Your task to perform on an android device: What is the recent news? Image 0: 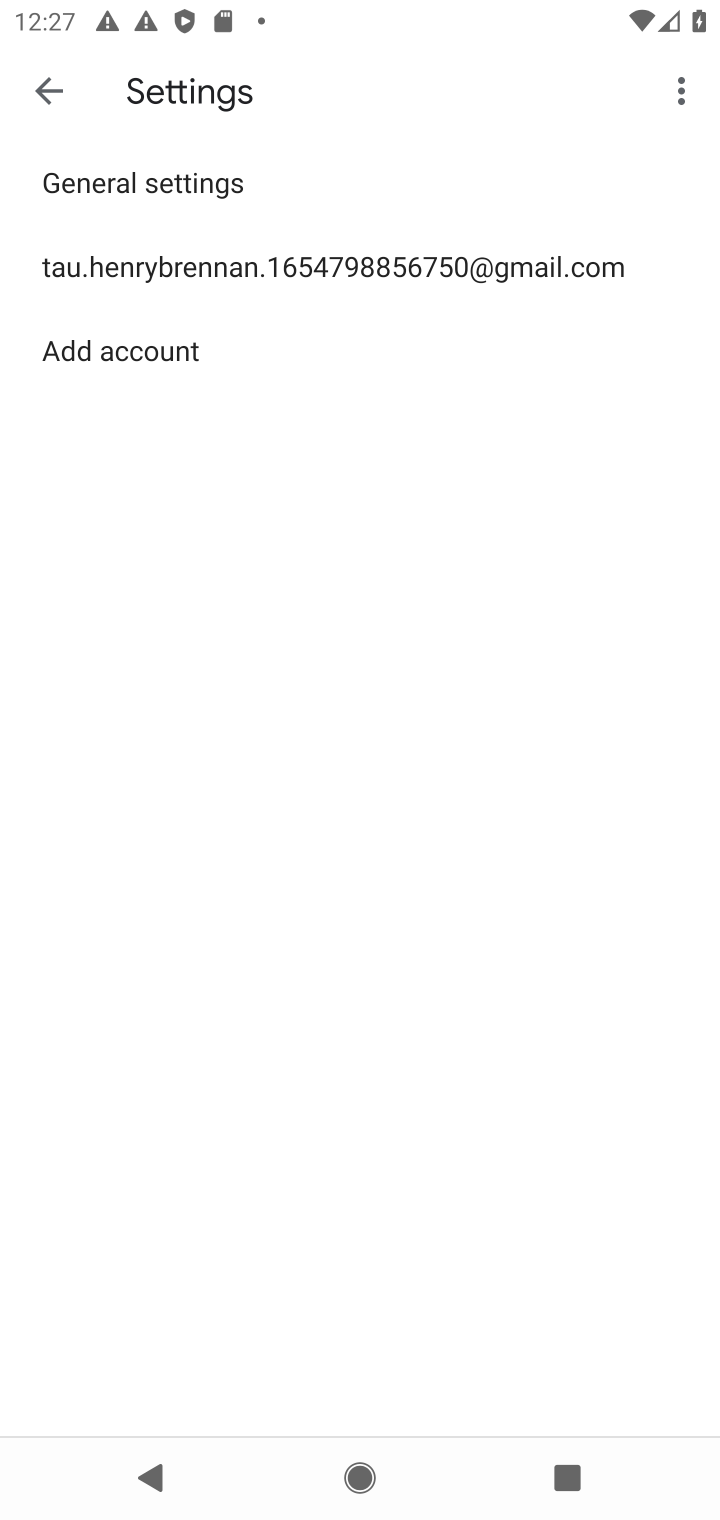
Step 0: click (409, 432)
Your task to perform on an android device: What is the recent news? Image 1: 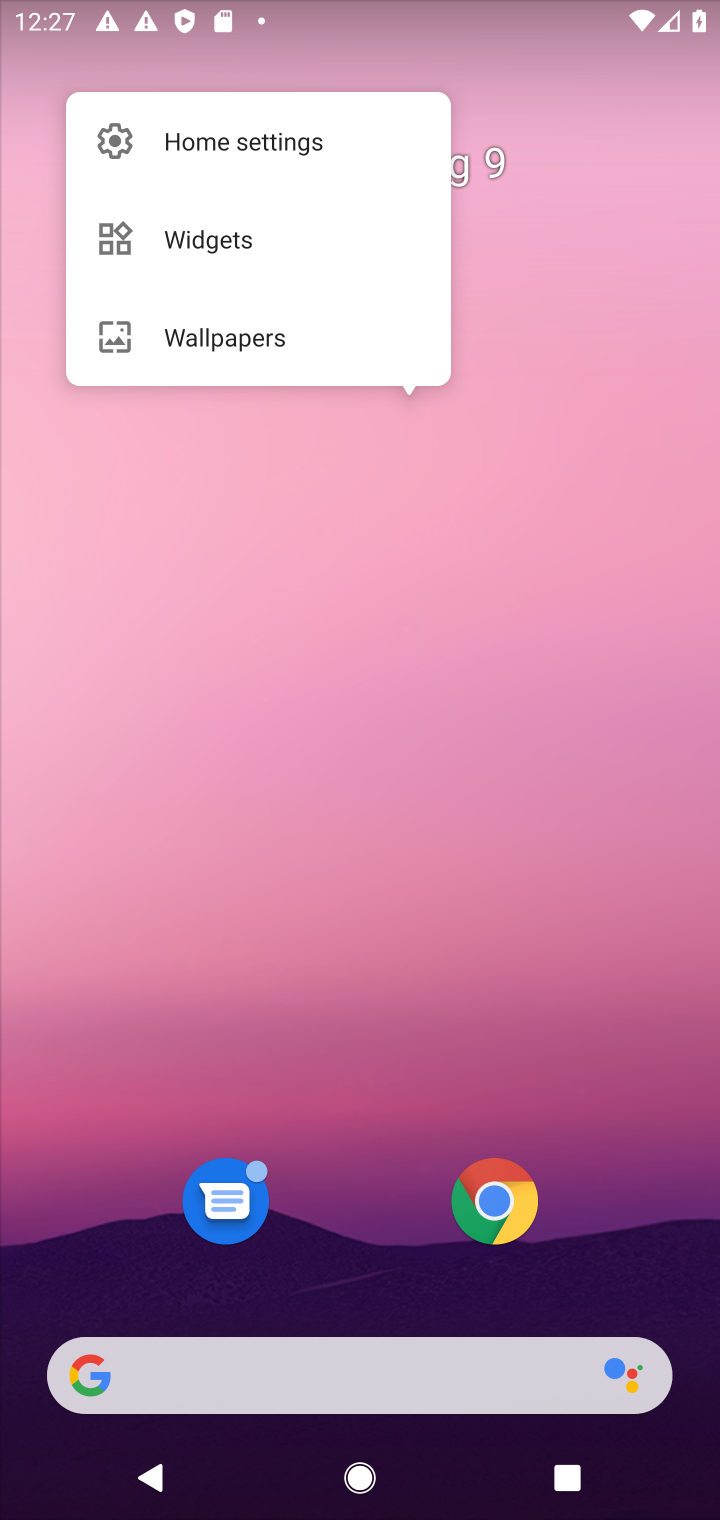
Step 1: type "Reddit.com"
Your task to perform on an android device: What is the recent news? Image 2: 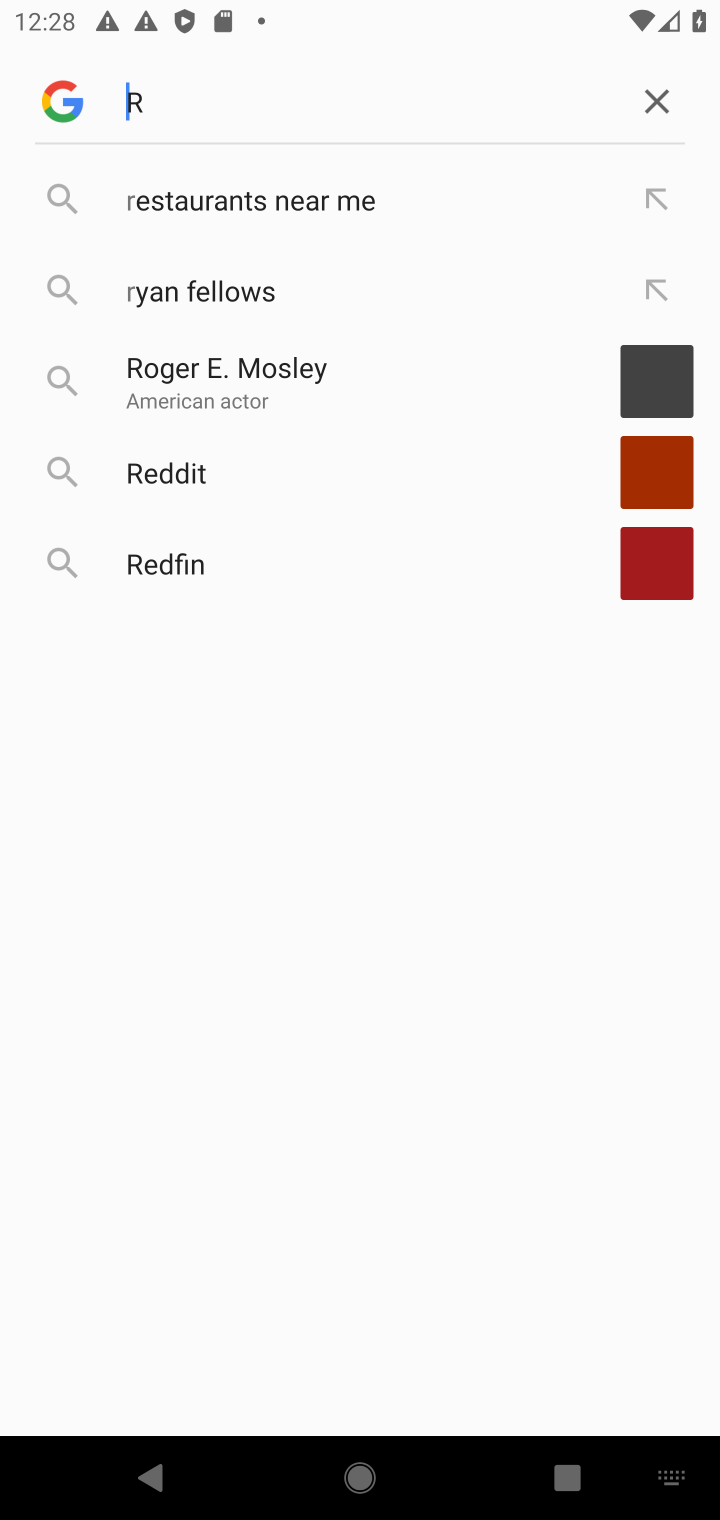
Step 2: click (282, 134)
Your task to perform on an android device: What is the recent news? Image 3: 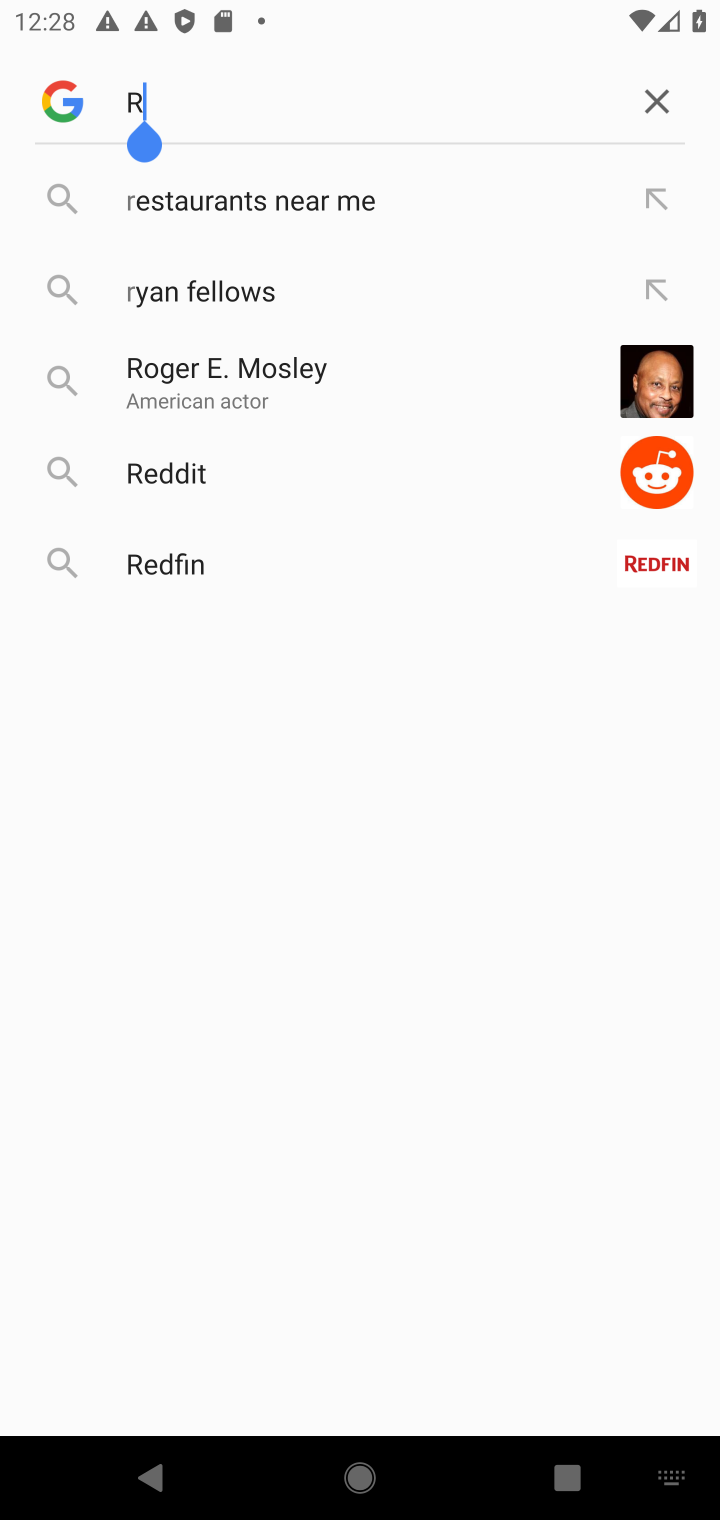
Step 3: click (163, 97)
Your task to perform on an android device: What is the recent news? Image 4: 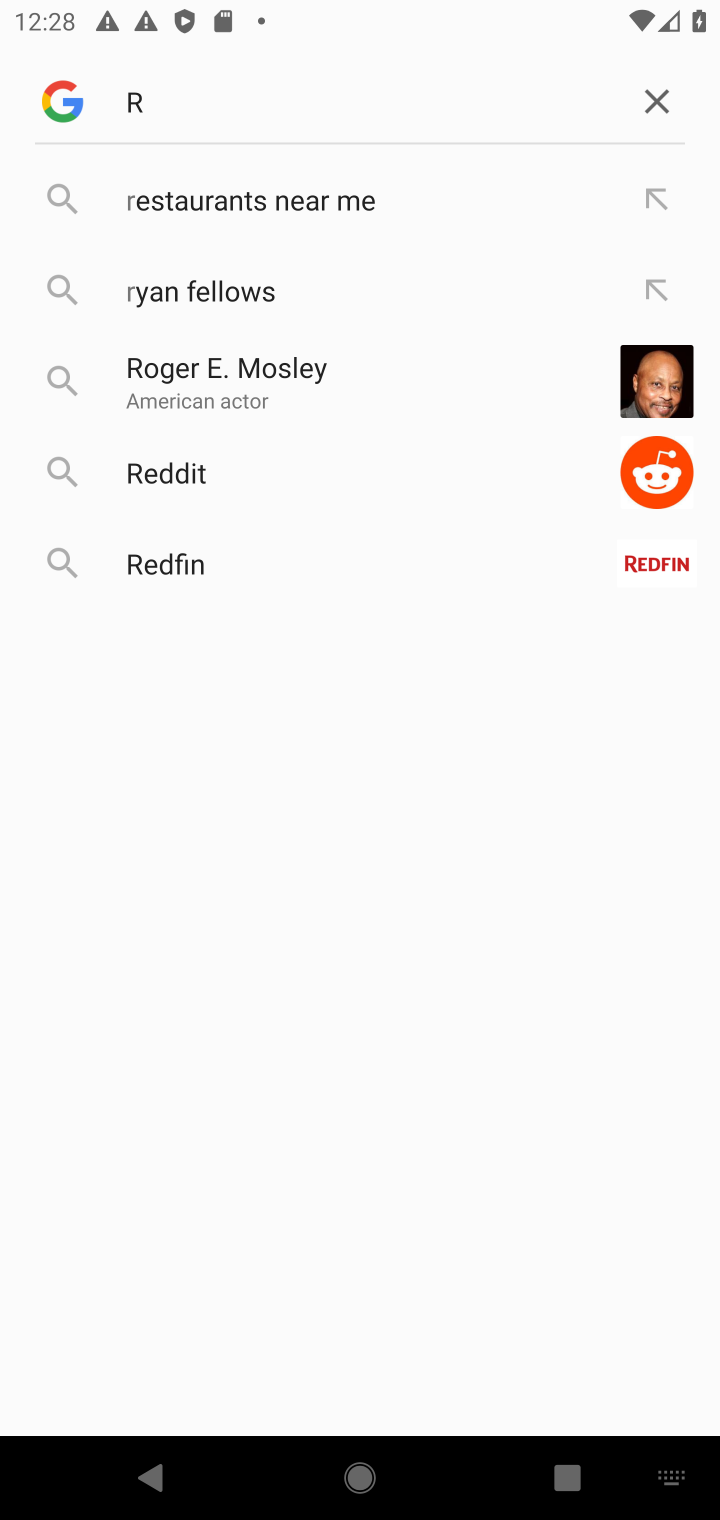
Step 4: type "ecent news ?"
Your task to perform on an android device: What is the recent news? Image 5: 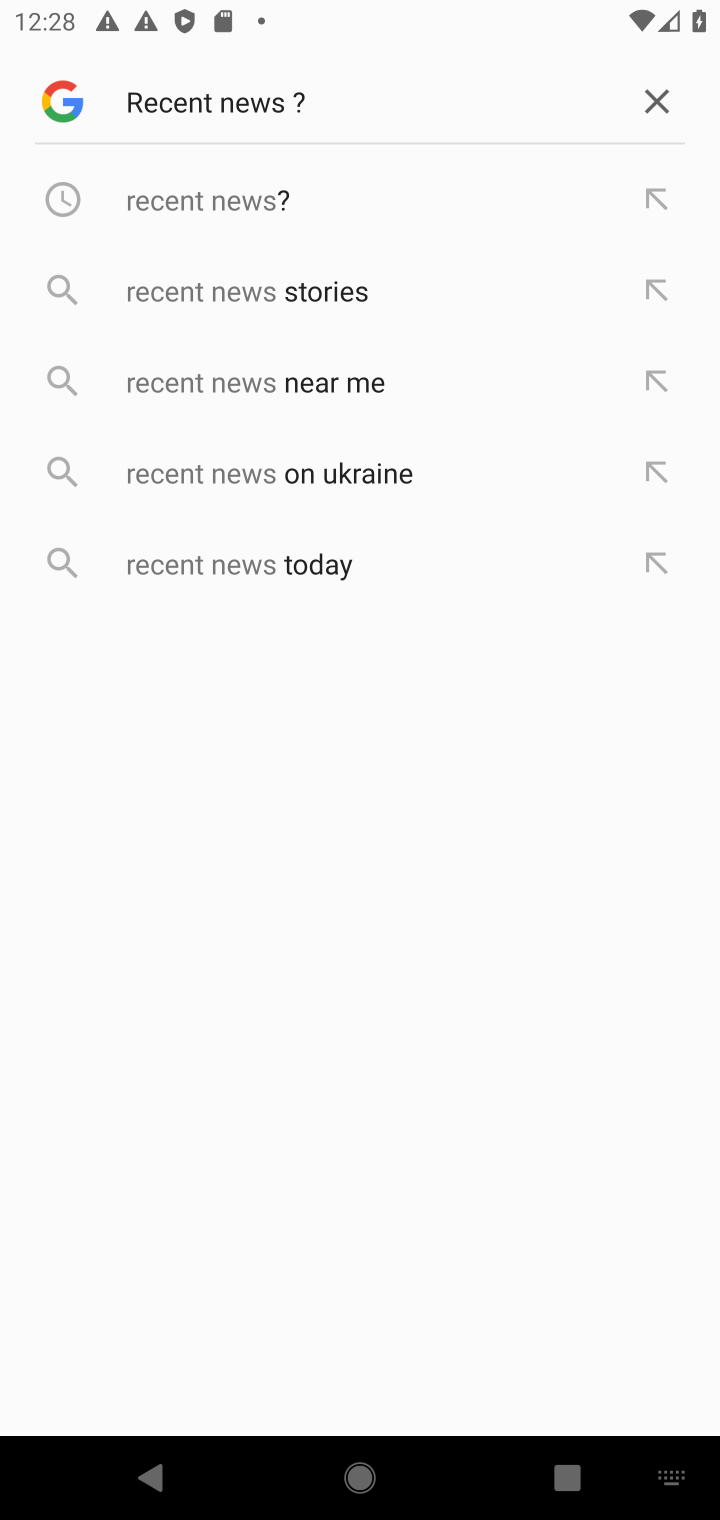
Step 5: click (215, 206)
Your task to perform on an android device: What is the recent news? Image 6: 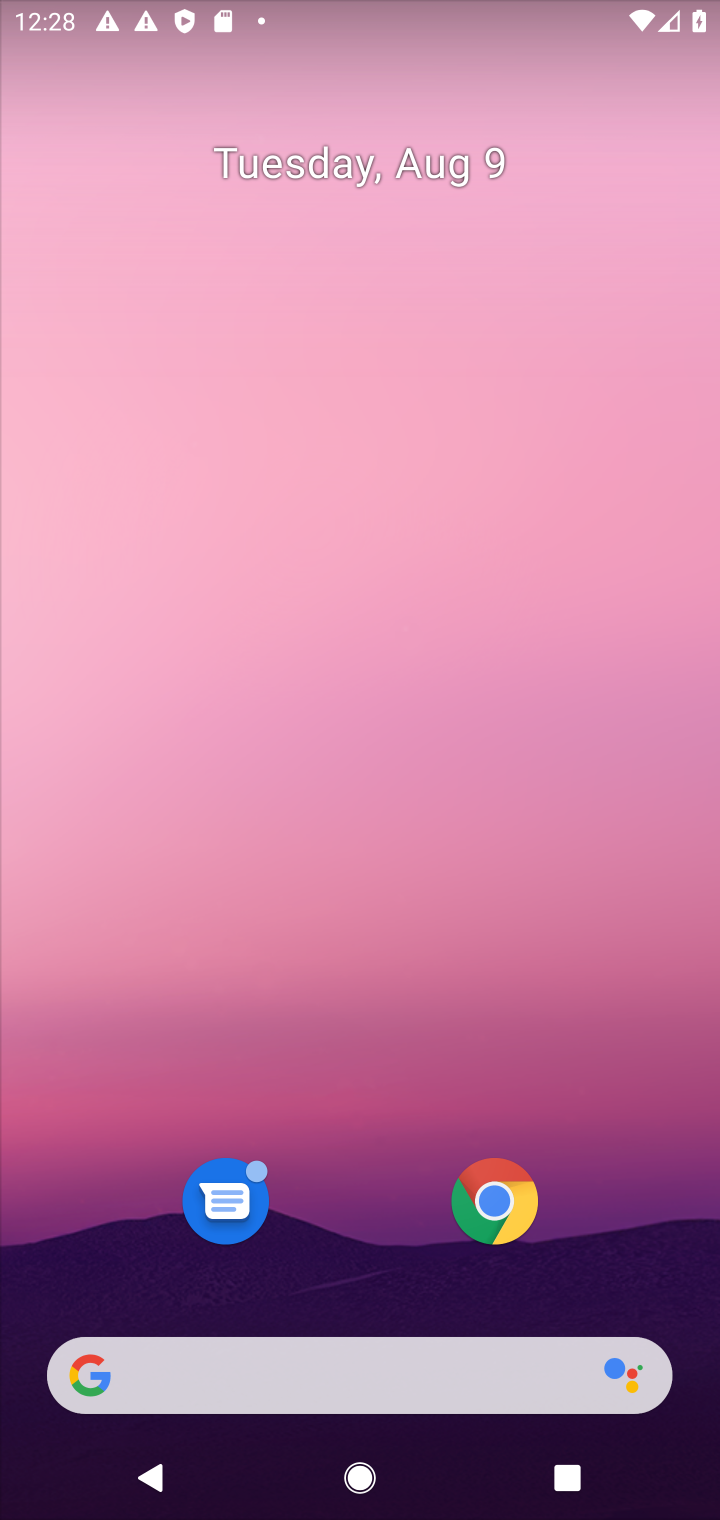
Step 6: task complete